Your task to perform on an android device: Open battery settings Image 0: 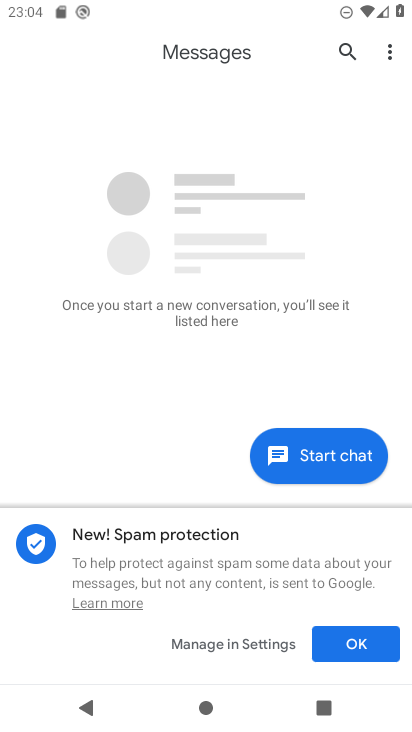
Step 0: press home button
Your task to perform on an android device: Open battery settings Image 1: 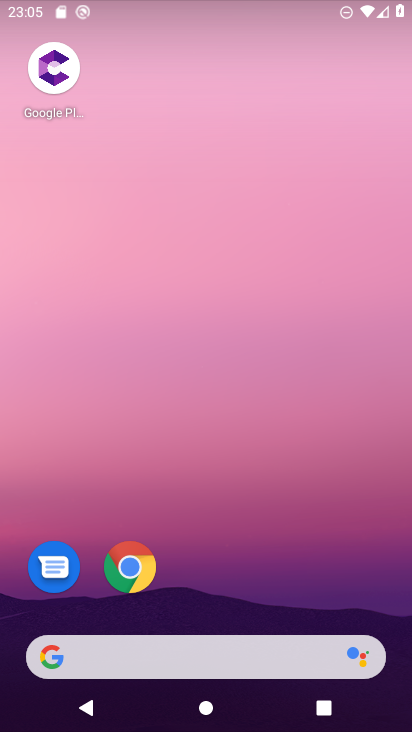
Step 1: drag from (300, 447) to (209, 0)
Your task to perform on an android device: Open battery settings Image 2: 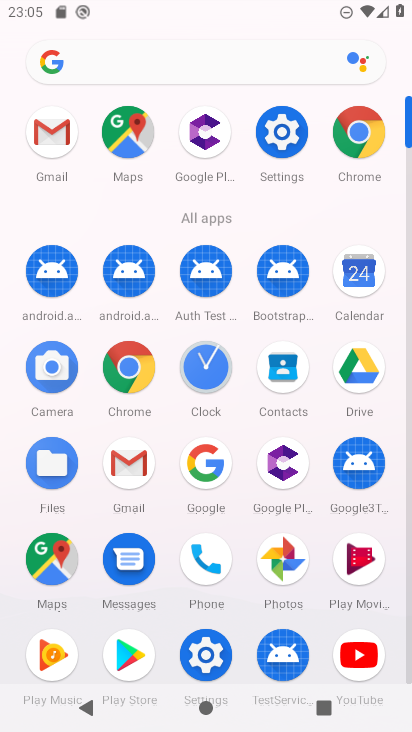
Step 2: click (286, 145)
Your task to perform on an android device: Open battery settings Image 3: 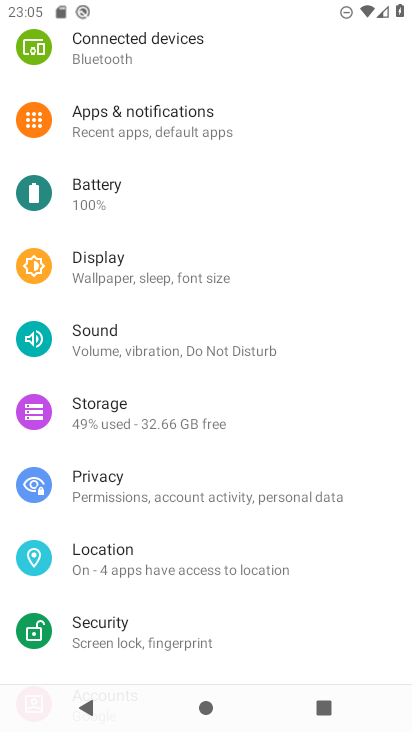
Step 3: click (128, 195)
Your task to perform on an android device: Open battery settings Image 4: 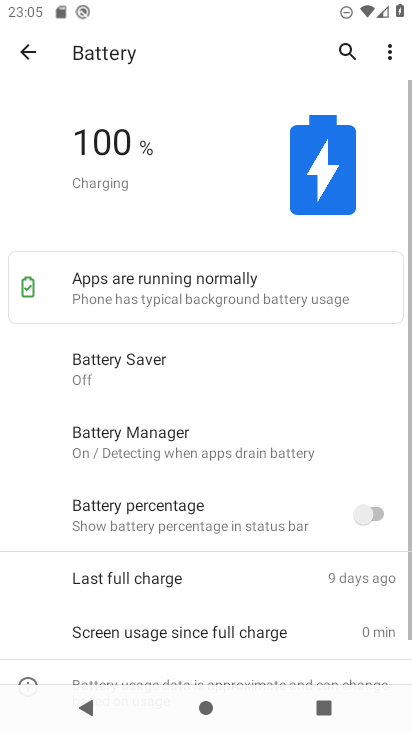
Step 4: task complete